Your task to perform on an android device: turn off data saver in the chrome app Image 0: 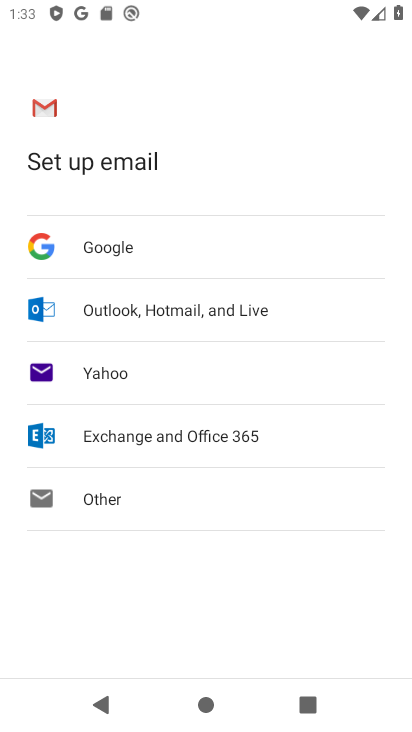
Step 0: press home button
Your task to perform on an android device: turn off data saver in the chrome app Image 1: 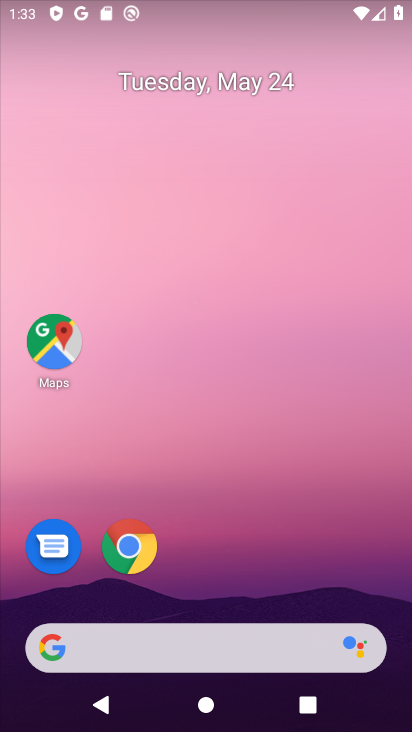
Step 1: drag from (211, 640) to (170, 110)
Your task to perform on an android device: turn off data saver in the chrome app Image 2: 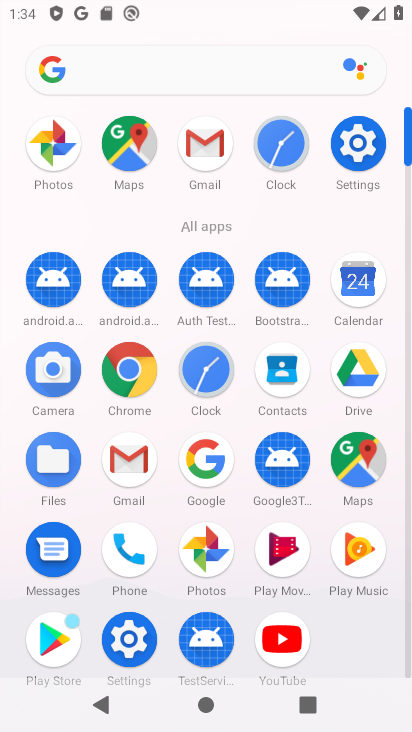
Step 2: click (129, 363)
Your task to perform on an android device: turn off data saver in the chrome app Image 3: 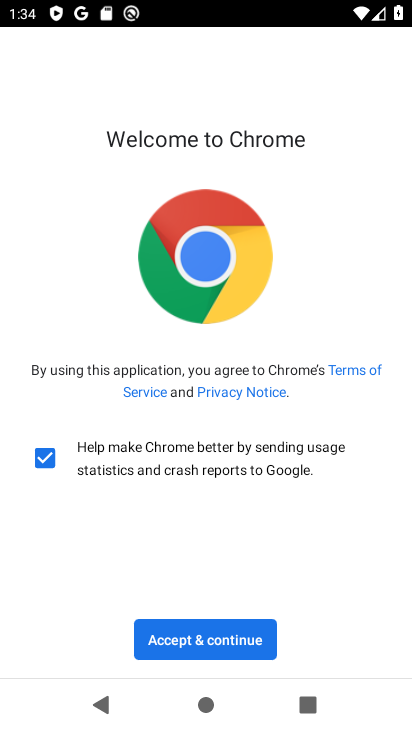
Step 3: click (181, 641)
Your task to perform on an android device: turn off data saver in the chrome app Image 4: 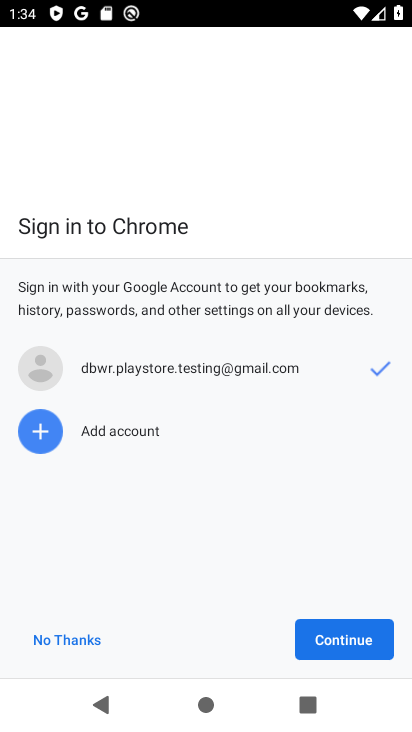
Step 4: click (315, 646)
Your task to perform on an android device: turn off data saver in the chrome app Image 5: 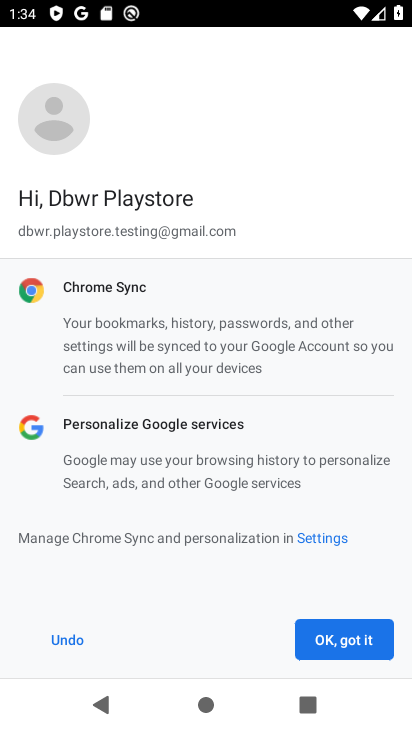
Step 5: click (328, 641)
Your task to perform on an android device: turn off data saver in the chrome app Image 6: 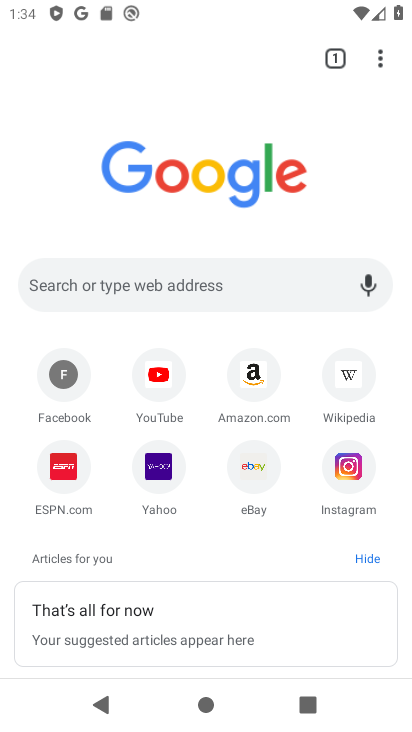
Step 6: drag from (382, 70) to (193, 489)
Your task to perform on an android device: turn off data saver in the chrome app Image 7: 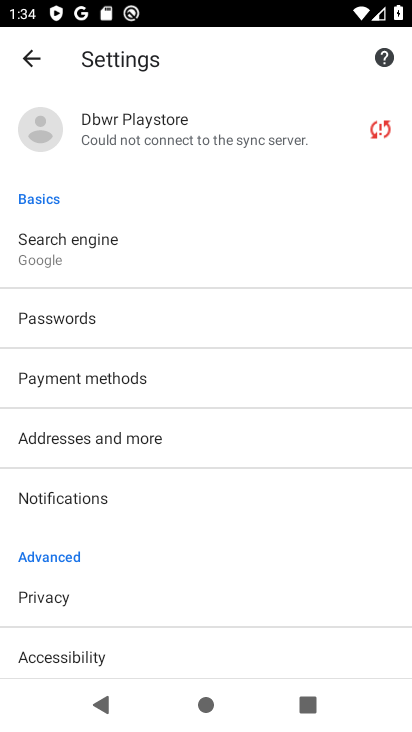
Step 7: drag from (115, 603) to (118, 98)
Your task to perform on an android device: turn off data saver in the chrome app Image 8: 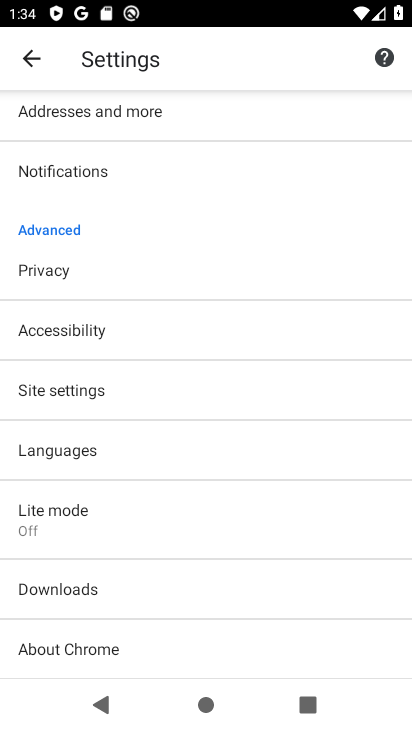
Step 8: click (82, 527)
Your task to perform on an android device: turn off data saver in the chrome app Image 9: 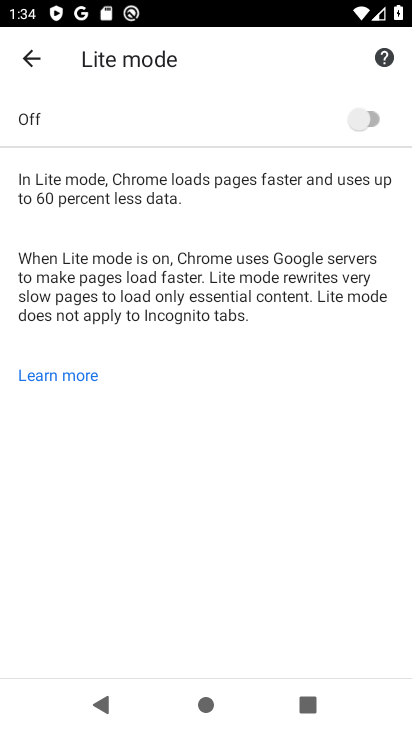
Step 9: task complete